Your task to perform on an android device: When is my next appointment? Image 0: 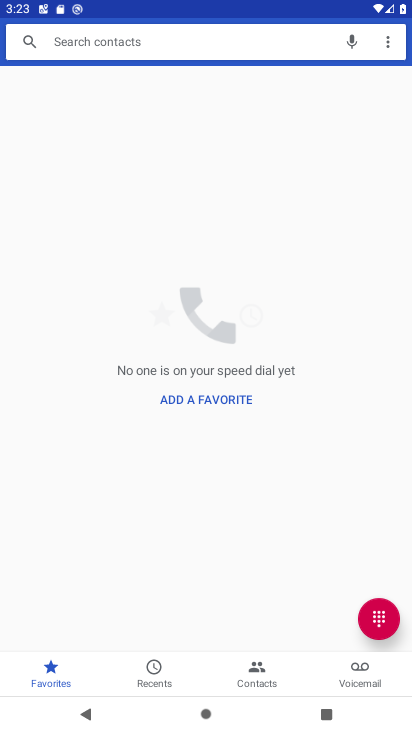
Step 0: press home button
Your task to perform on an android device: When is my next appointment? Image 1: 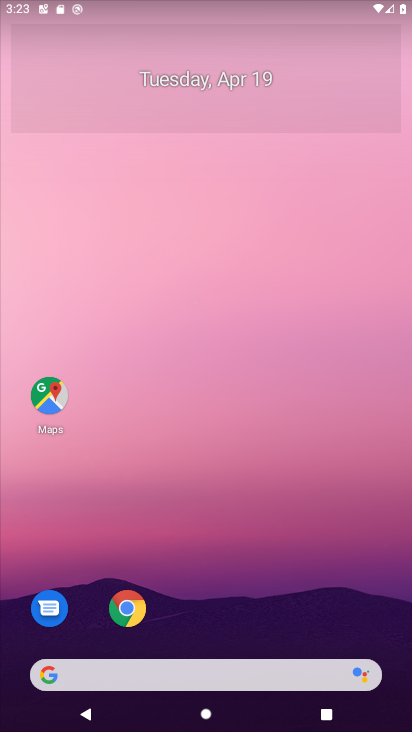
Step 1: drag from (278, 615) to (224, 143)
Your task to perform on an android device: When is my next appointment? Image 2: 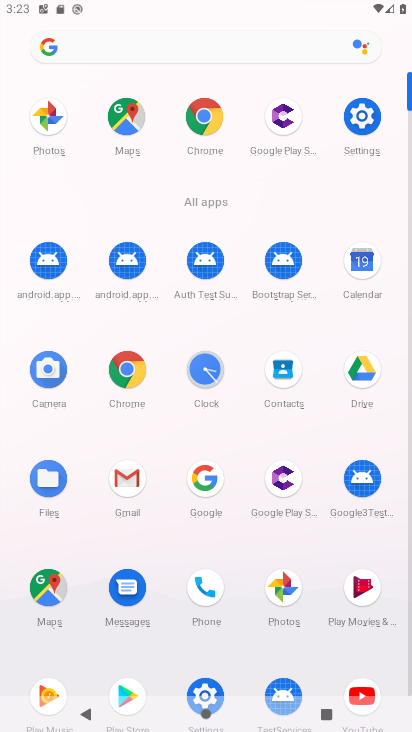
Step 2: click (363, 265)
Your task to perform on an android device: When is my next appointment? Image 3: 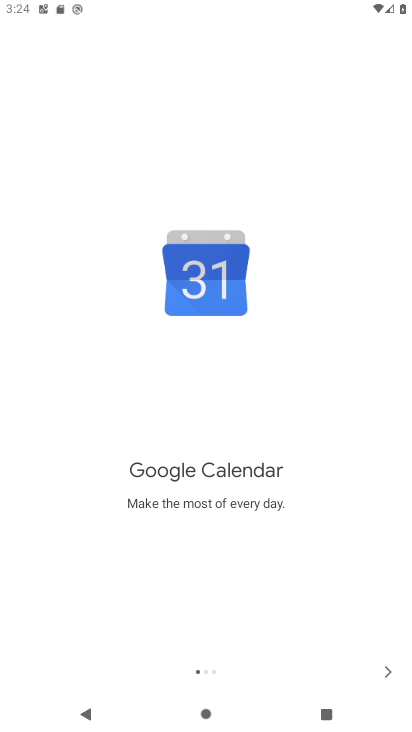
Step 3: click (382, 671)
Your task to perform on an android device: When is my next appointment? Image 4: 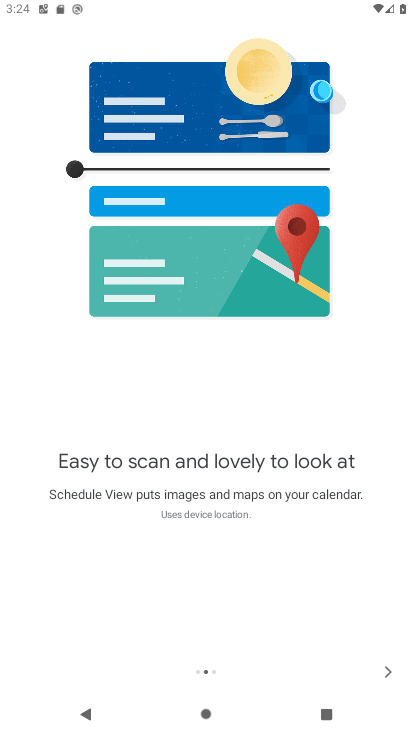
Step 4: click (386, 674)
Your task to perform on an android device: When is my next appointment? Image 5: 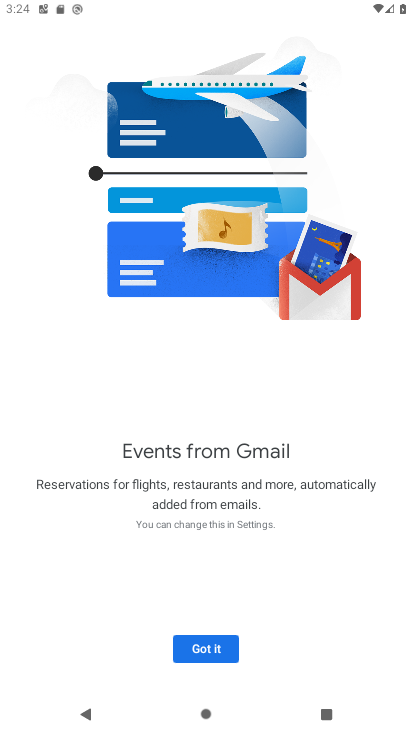
Step 5: click (186, 639)
Your task to perform on an android device: When is my next appointment? Image 6: 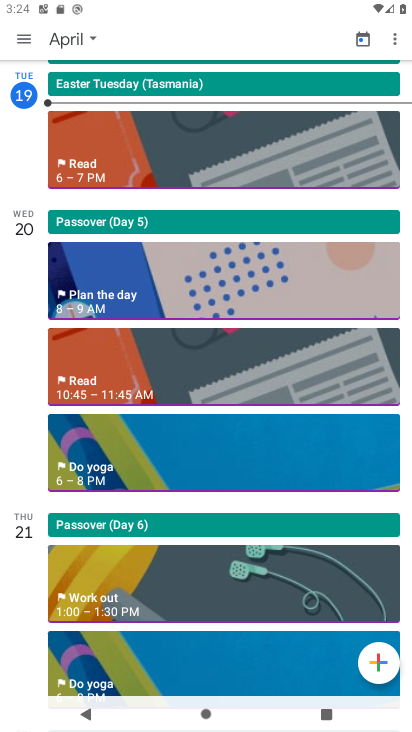
Step 6: click (74, 43)
Your task to perform on an android device: When is my next appointment? Image 7: 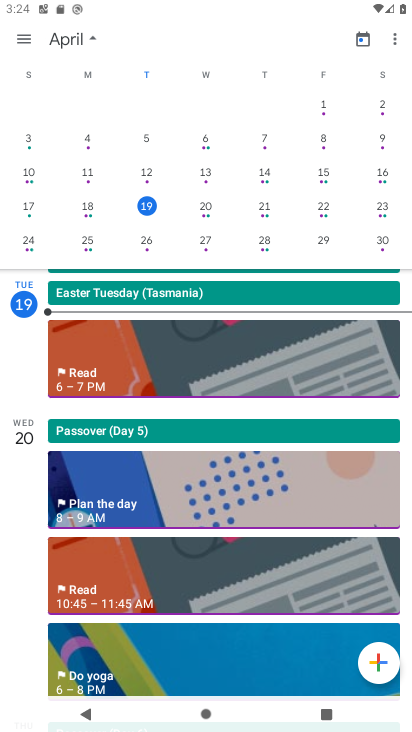
Step 7: task complete